Your task to perform on an android device: Go to Amazon Image 0: 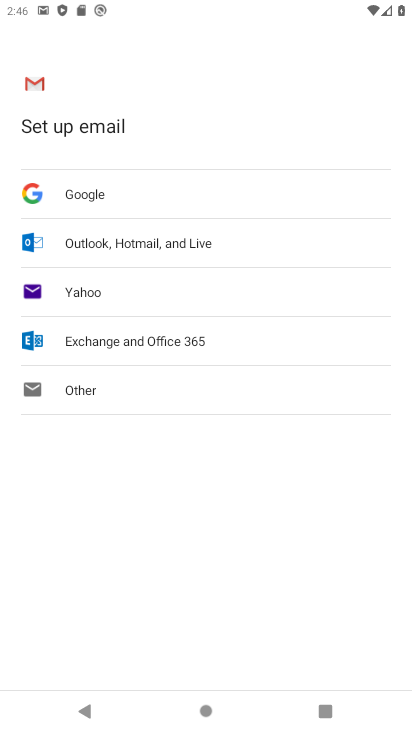
Step 0: press back button
Your task to perform on an android device: Go to Amazon Image 1: 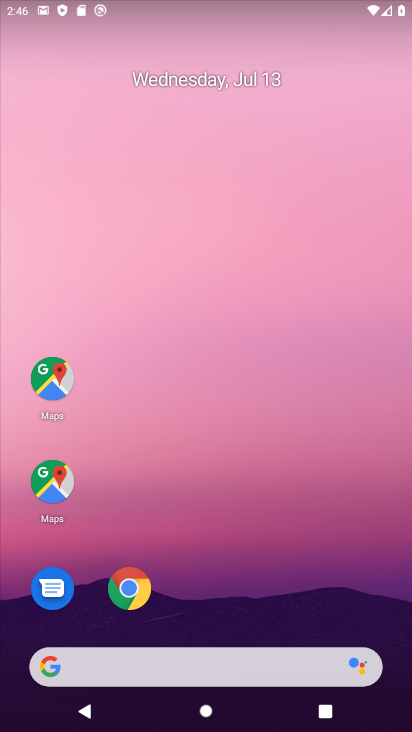
Step 1: drag from (264, 709) to (139, 166)
Your task to perform on an android device: Go to Amazon Image 2: 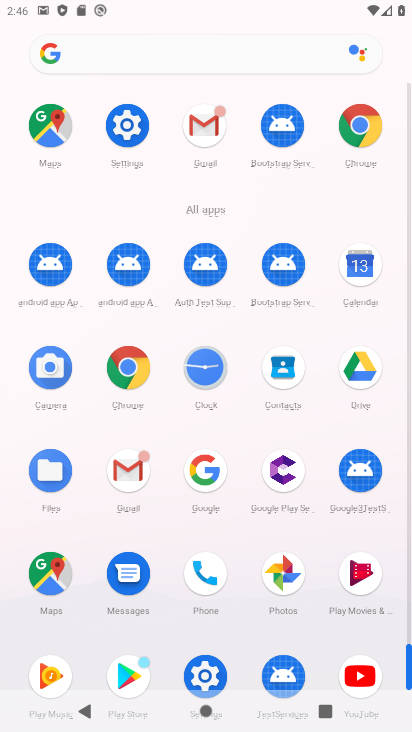
Step 2: click (368, 120)
Your task to perform on an android device: Go to Amazon Image 3: 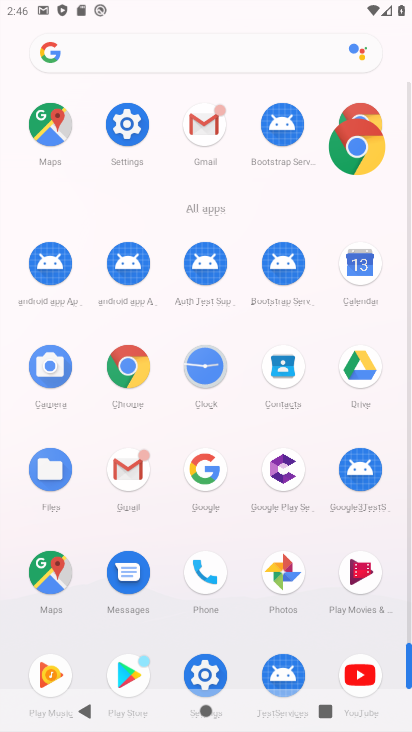
Step 3: click (364, 132)
Your task to perform on an android device: Go to Amazon Image 4: 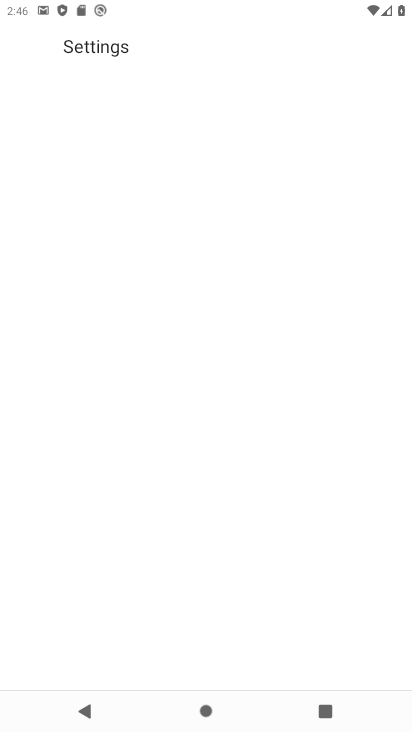
Step 4: click (366, 135)
Your task to perform on an android device: Go to Amazon Image 5: 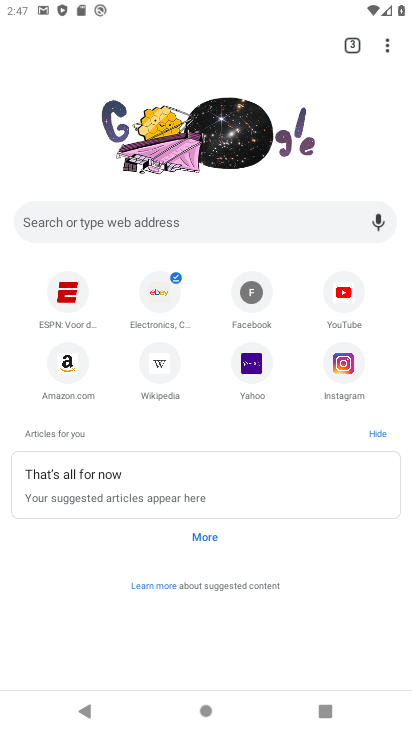
Step 5: click (85, 357)
Your task to perform on an android device: Go to Amazon Image 6: 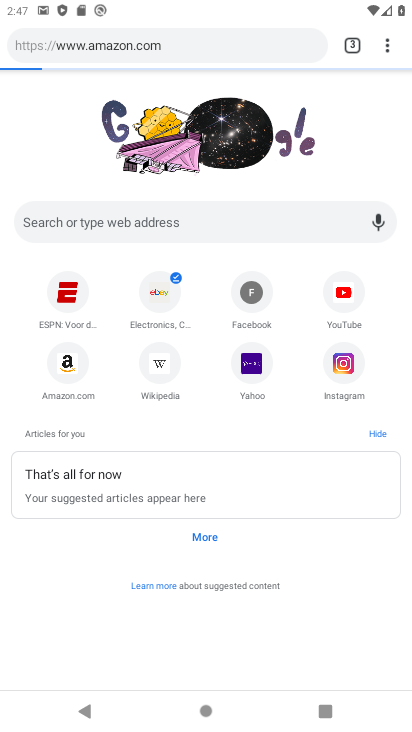
Step 6: click (69, 364)
Your task to perform on an android device: Go to Amazon Image 7: 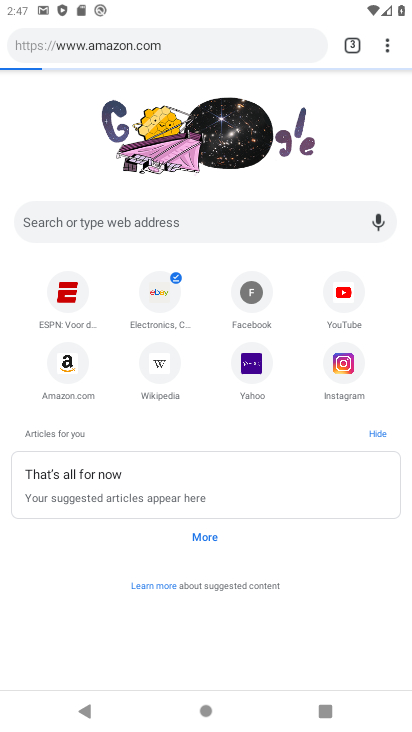
Step 7: click (68, 364)
Your task to perform on an android device: Go to Amazon Image 8: 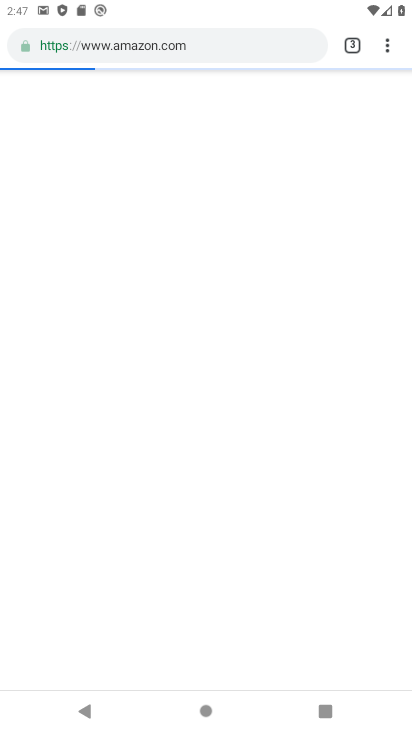
Step 8: click (67, 360)
Your task to perform on an android device: Go to Amazon Image 9: 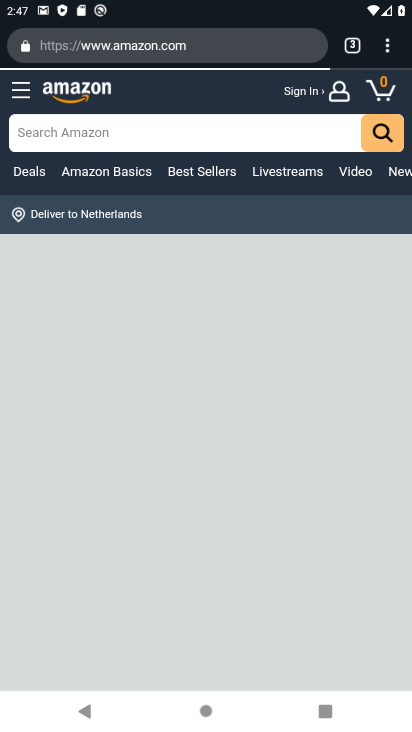
Step 9: task complete